Your task to perform on an android device: turn on showing notifications on the lock screen Image 0: 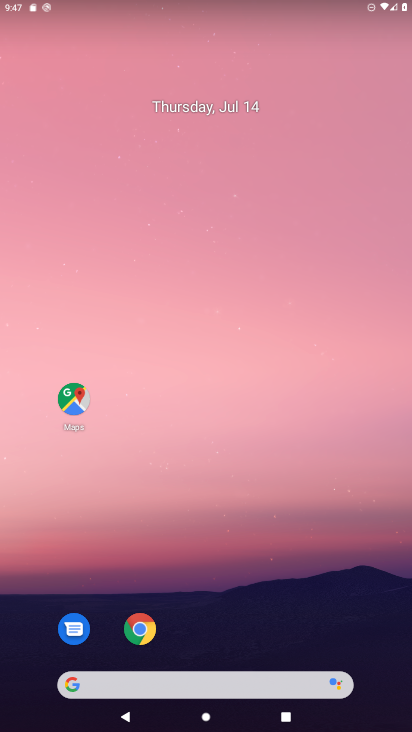
Step 0: drag from (226, 596) to (223, 123)
Your task to perform on an android device: turn on showing notifications on the lock screen Image 1: 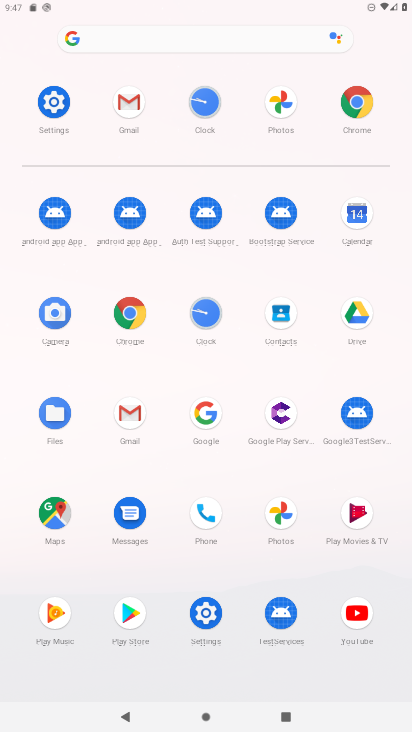
Step 1: click (204, 594)
Your task to perform on an android device: turn on showing notifications on the lock screen Image 2: 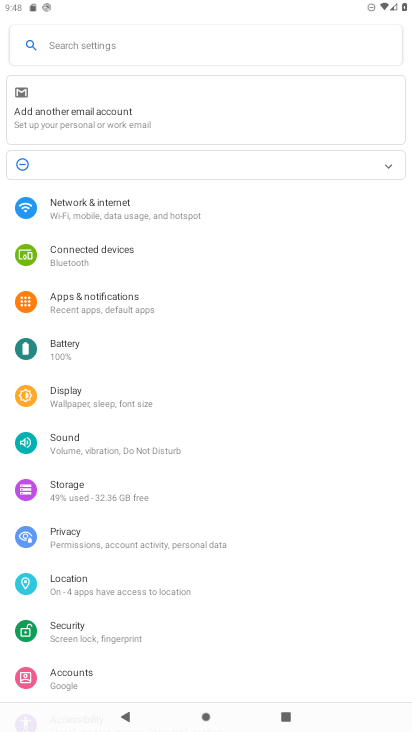
Step 2: click (114, 293)
Your task to perform on an android device: turn on showing notifications on the lock screen Image 3: 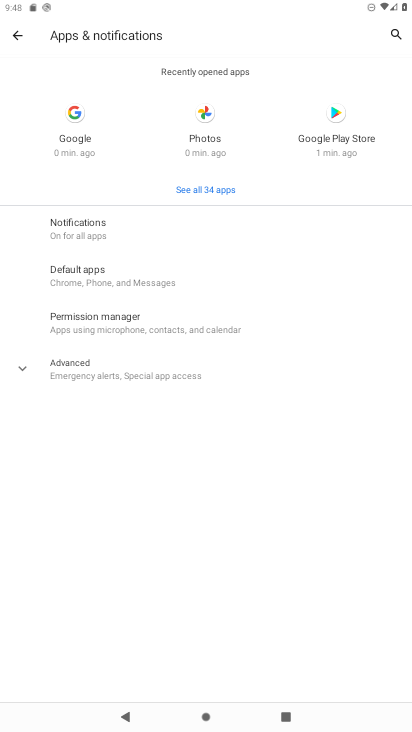
Step 3: click (78, 229)
Your task to perform on an android device: turn on showing notifications on the lock screen Image 4: 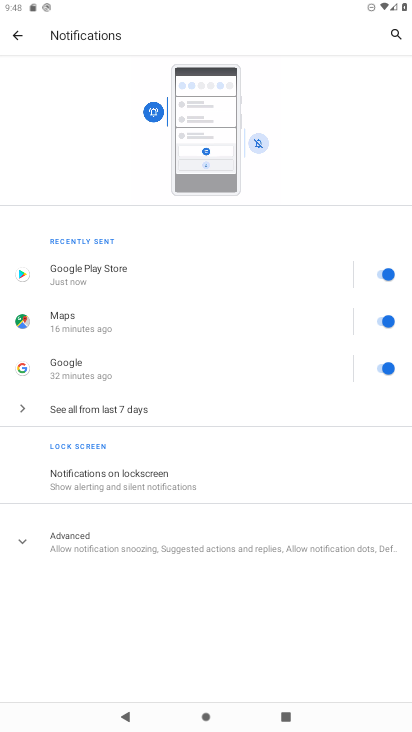
Step 4: click (131, 482)
Your task to perform on an android device: turn on showing notifications on the lock screen Image 5: 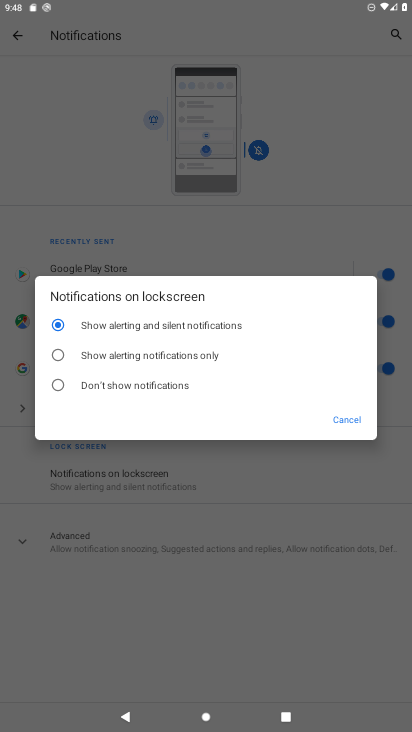
Step 5: task complete